Your task to perform on an android device: change notification settings in the gmail app Image 0: 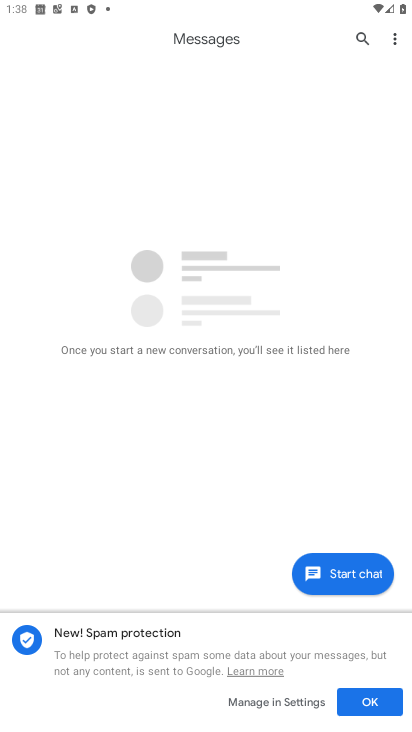
Step 0: press home button
Your task to perform on an android device: change notification settings in the gmail app Image 1: 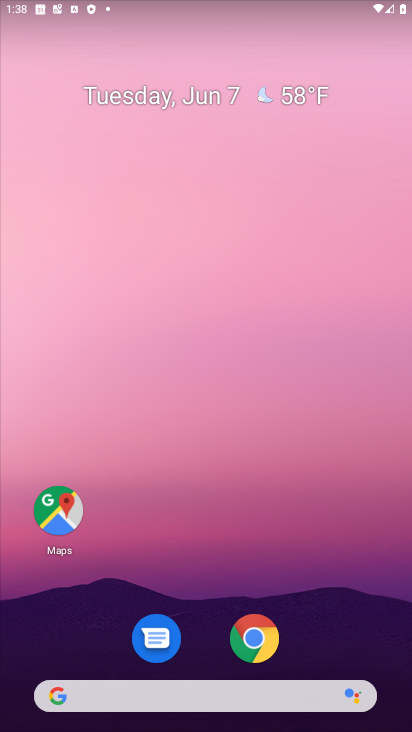
Step 1: drag from (208, 643) to (228, 276)
Your task to perform on an android device: change notification settings in the gmail app Image 2: 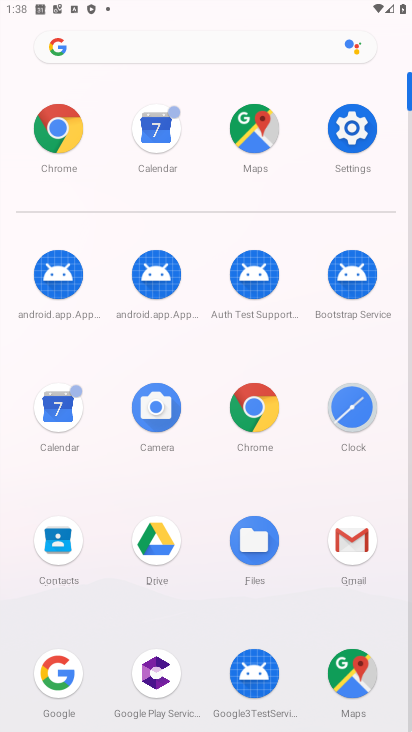
Step 2: click (350, 538)
Your task to perform on an android device: change notification settings in the gmail app Image 3: 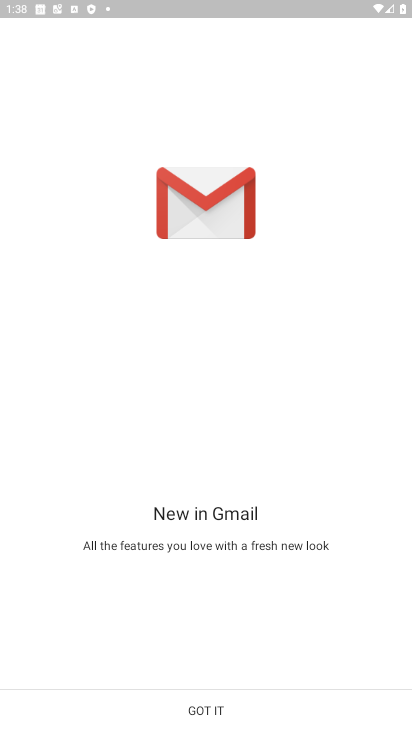
Step 3: click (182, 717)
Your task to perform on an android device: change notification settings in the gmail app Image 4: 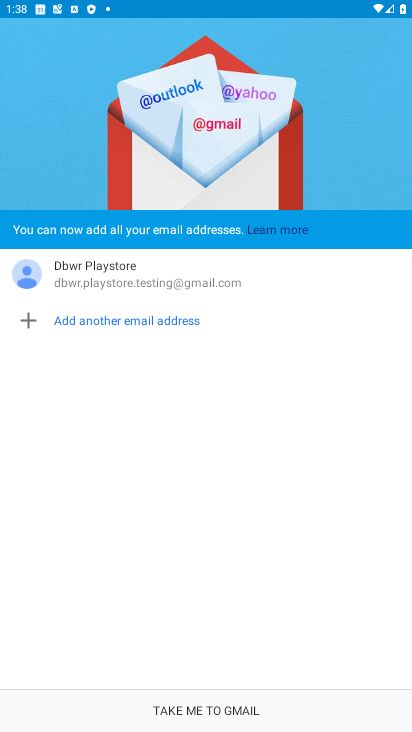
Step 4: click (186, 711)
Your task to perform on an android device: change notification settings in the gmail app Image 5: 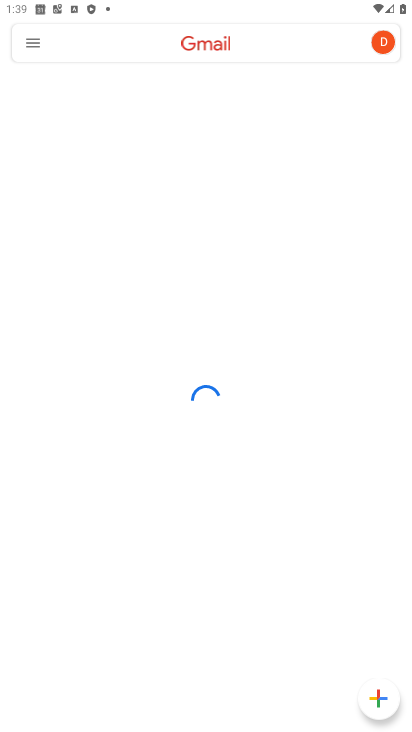
Step 5: click (17, 40)
Your task to perform on an android device: change notification settings in the gmail app Image 6: 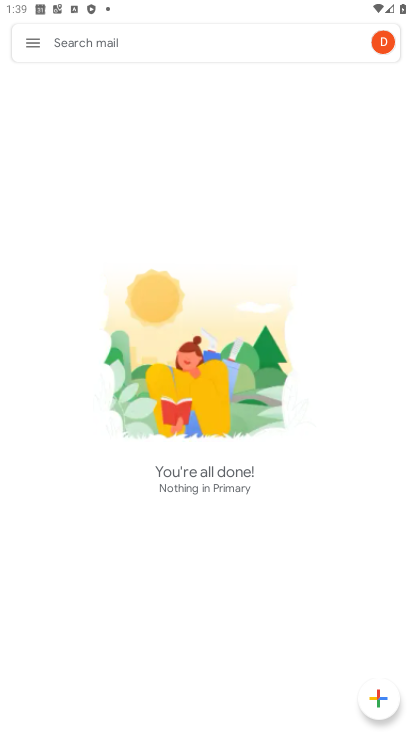
Step 6: click (38, 42)
Your task to perform on an android device: change notification settings in the gmail app Image 7: 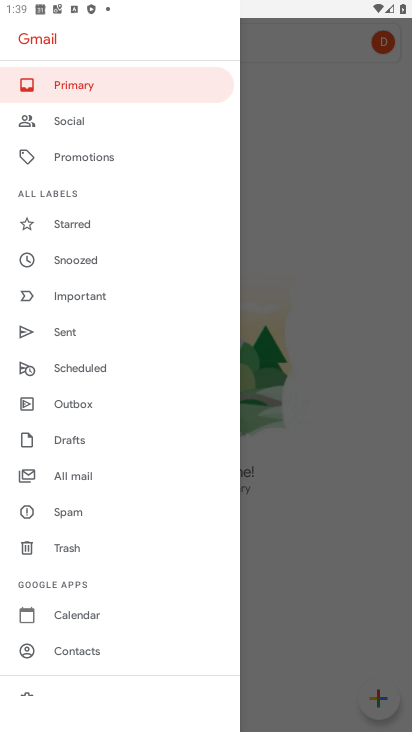
Step 7: drag from (82, 575) to (141, 200)
Your task to perform on an android device: change notification settings in the gmail app Image 8: 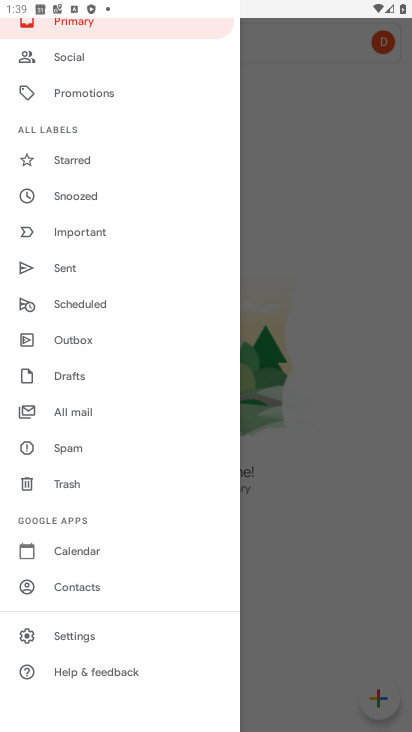
Step 8: click (81, 638)
Your task to perform on an android device: change notification settings in the gmail app Image 9: 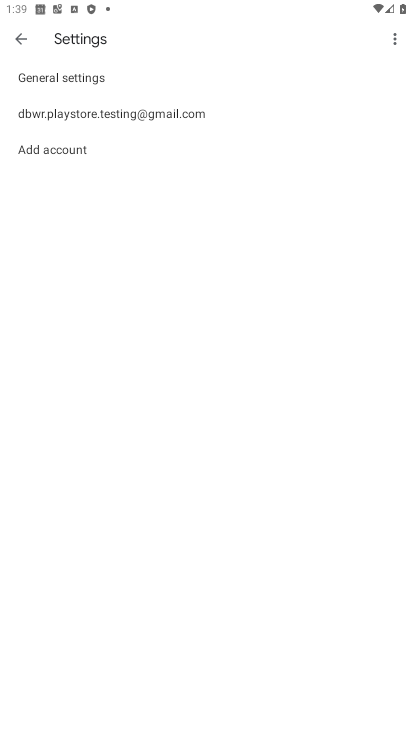
Step 9: click (105, 119)
Your task to perform on an android device: change notification settings in the gmail app Image 10: 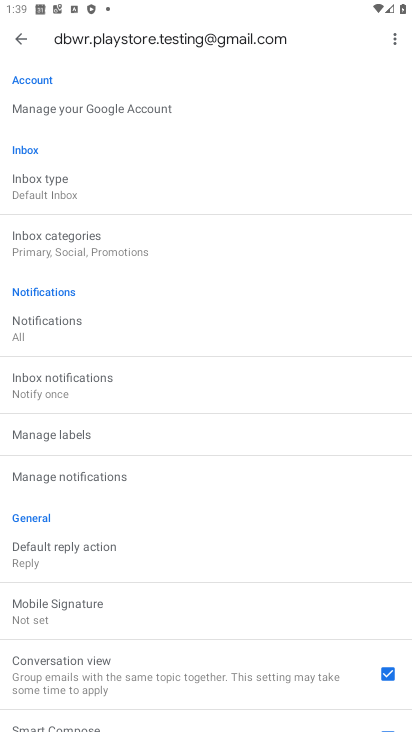
Step 10: click (75, 483)
Your task to perform on an android device: change notification settings in the gmail app Image 11: 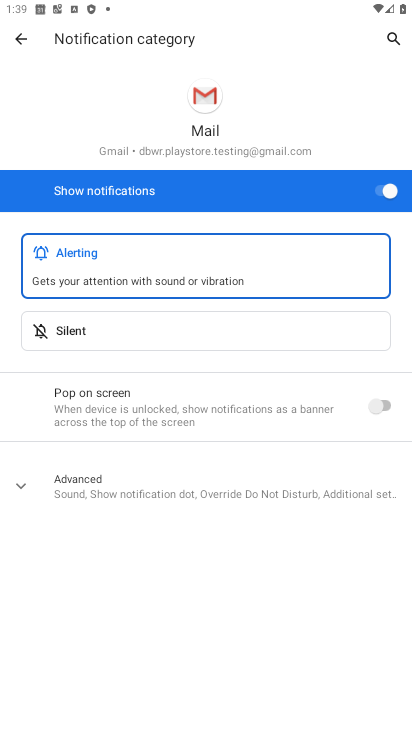
Step 11: click (383, 193)
Your task to perform on an android device: change notification settings in the gmail app Image 12: 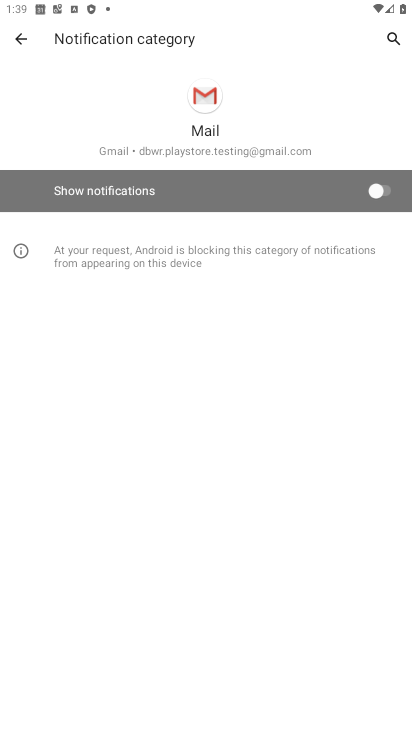
Step 12: press home button
Your task to perform on an android device: change notification settings in the gmail app Image 13: 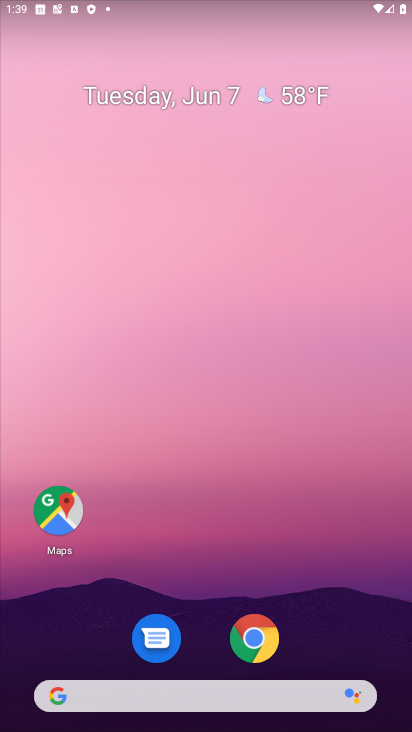
Step 13: drag from (200, 652) to (216, 204)
Your task to perform on an android device: change notification settings in the gmail app Image 14: 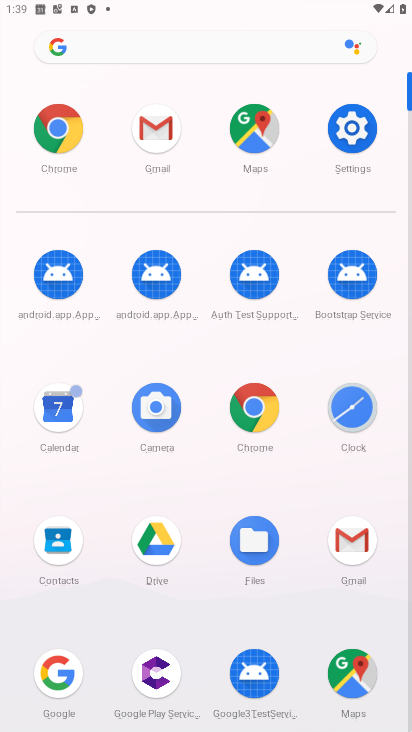
Step 14: click (349, 558)
Your task to perform on an android device: change notification settings in the gmail app Image 15: 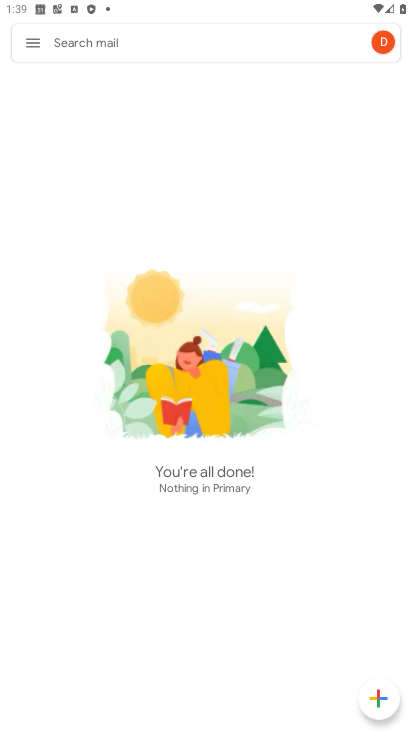
Step 15: click (39, 43)
Your task to perform on an android device: change notification settings in the gmail app Image 16: 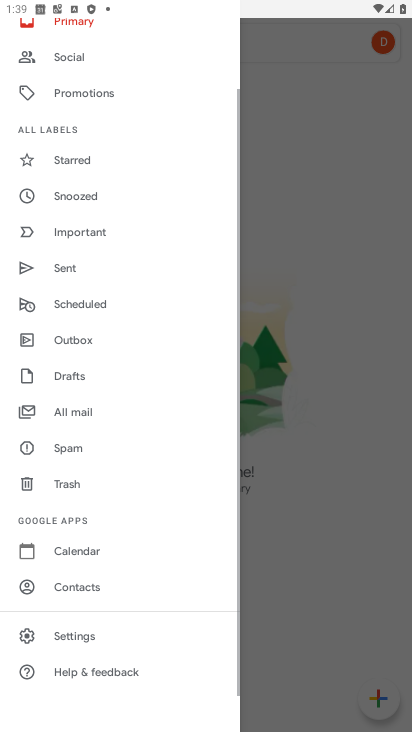
Step 16: click (100, 636)
Your task to perform on an android device: change notification settings in the gmail app Image 17: 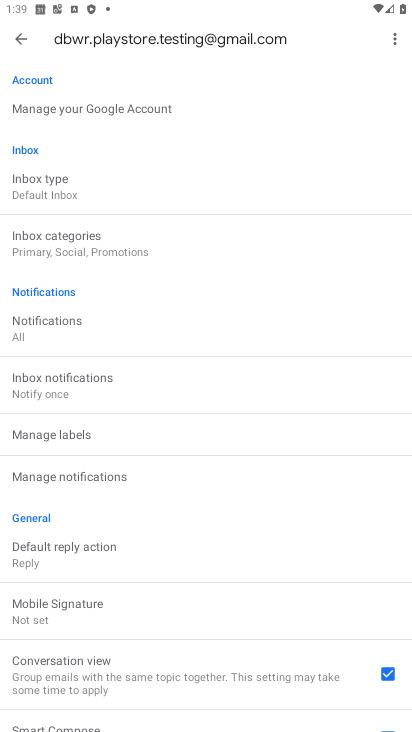
Step 17: click (100, 483)
Your task to perform on an android device: change notification settings in the gmail app Image 18: 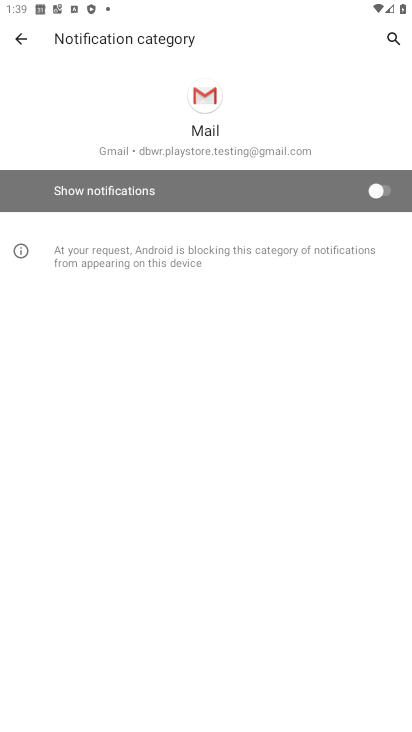
Step 18: click (377, 191)
Your task to perform on an android device: change notification settings in the gmail app Image 19: 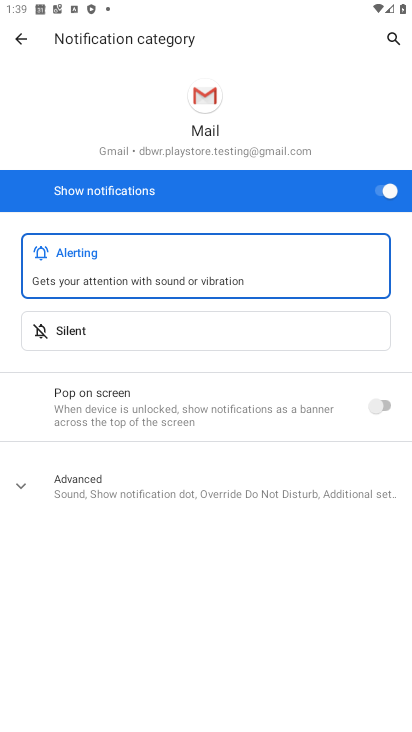
Step 19: task complete